Your task to perform on an android device: Show me popular games on the Play Store Image 0: 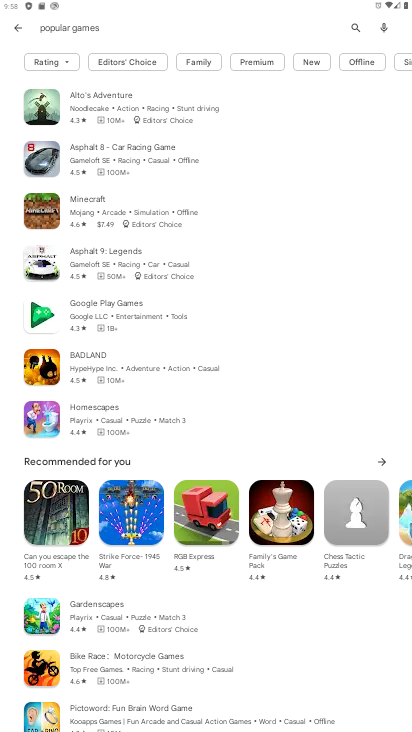
Step 0: press home button
Your task to perform on an android device: Show me popular games on the Play Store Image 1: 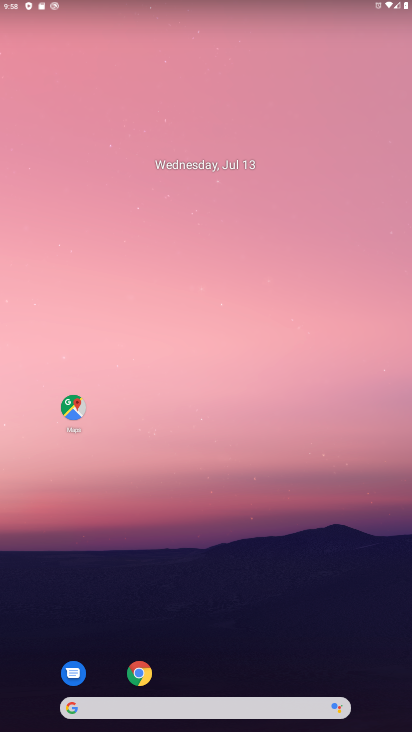
Step 1: drag from (196, 696) to (235, 350)
Your task to perform on an android device: Show me popular games on the Play Store Image 2: 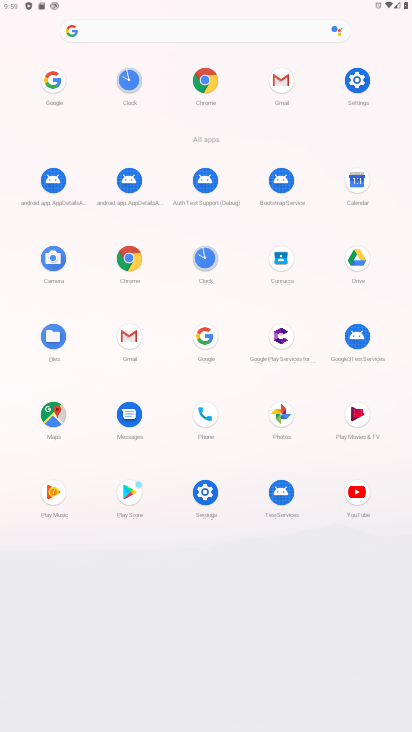
Step 2: click (125, 497)
Your task to perform on an android device: Show me popular games on the Play Store Image 3: 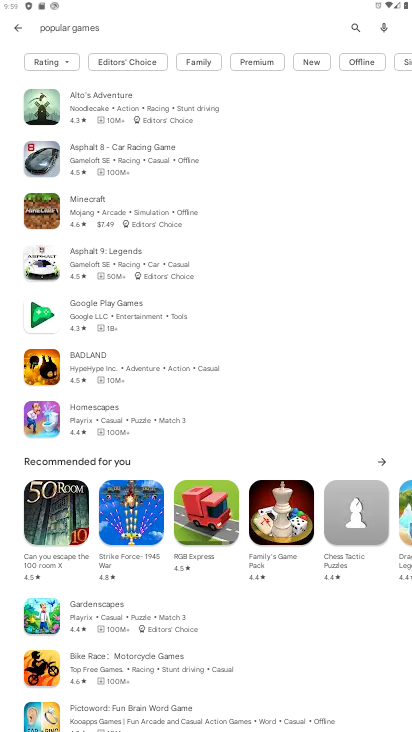
Step 3: task complete